Your task to perform on an android device: Open battery settings Image 0: 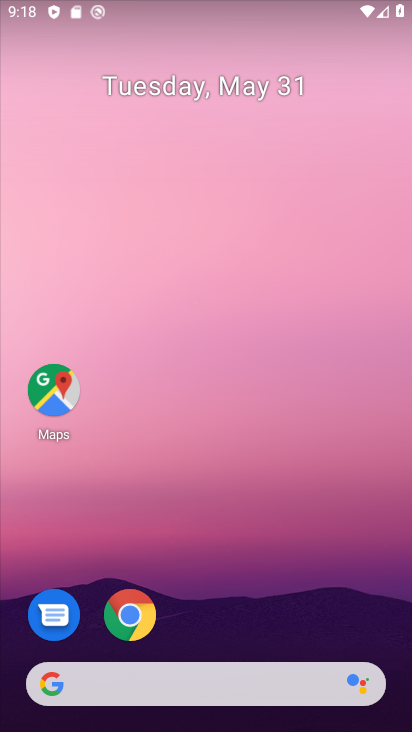
Step 0: drag from (262, 631) to (335, 6)
Your task to perform on an android device: Open battery settings Image 1: 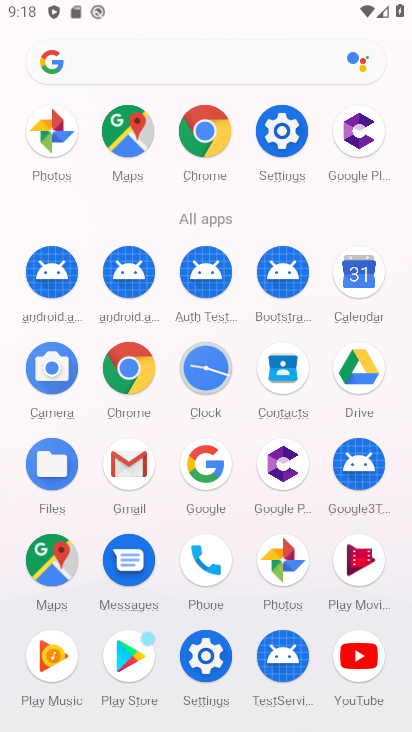
Step 1: click (289, 128)
Your task to perform on an android device: Open battery settings Image 2: 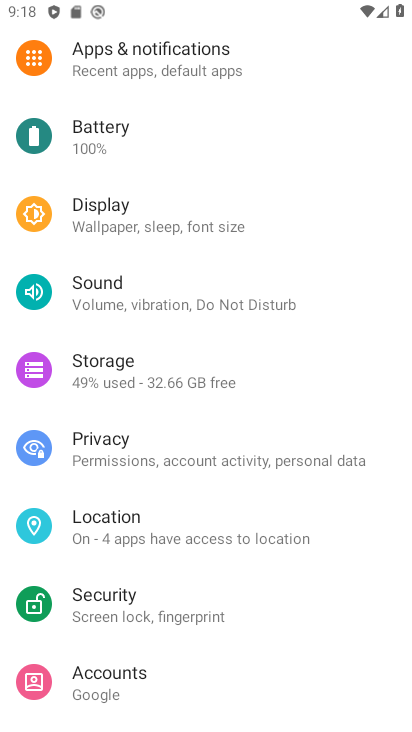
Step 2: click (119, 137)
Your task to perform on an android device: Open battery settings Image 3: 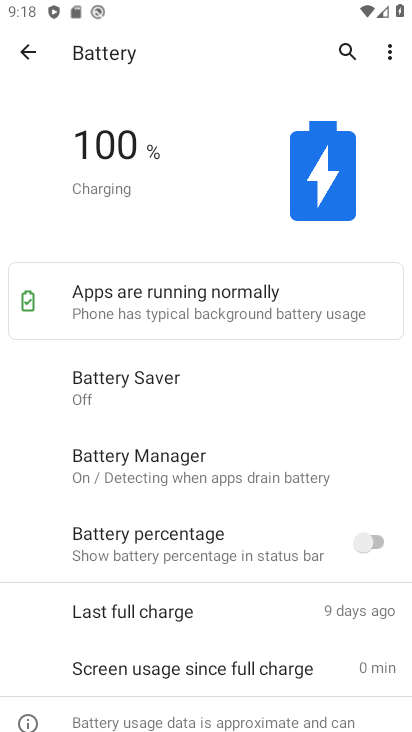
Step 3: task complete